Your task to perform on an android device: Open Maps and search for coffee Image 0: 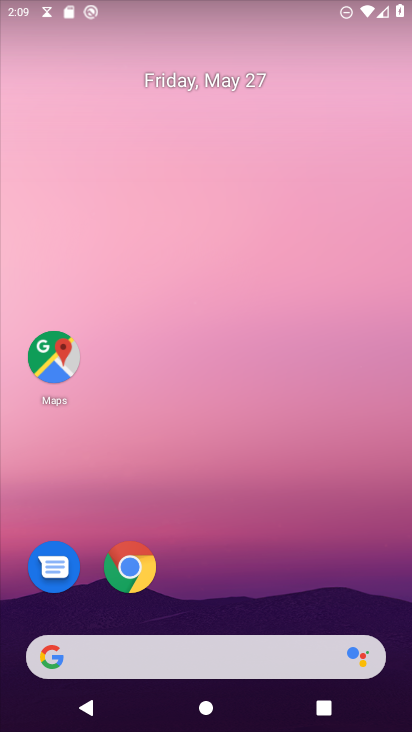
Step 0: drag from (222, 593) to (210, 206)
Your task to perform on an android device: Open Maps and search for coffee Image 1: 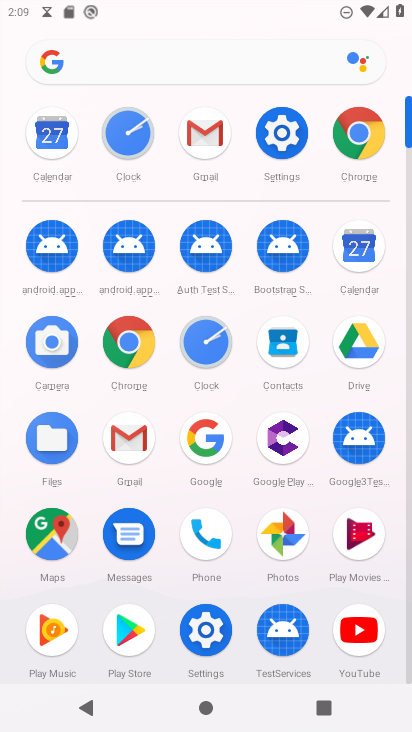
Step 1: click (49, 536)
Your task to perform on an android device: Open Maps and search for coffee Image 2: 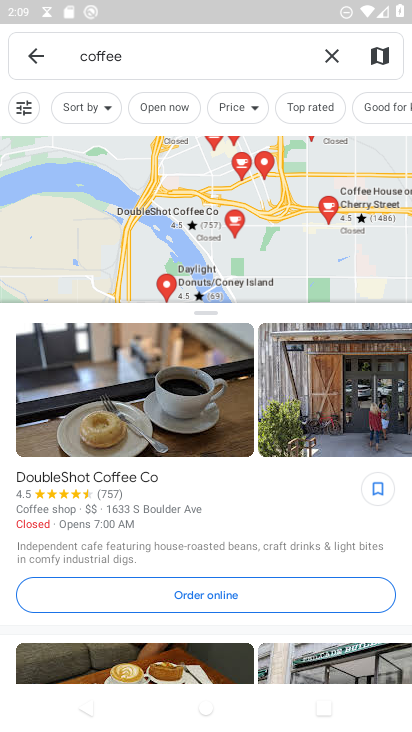
Step 2: task complete